Your task to perform on an android device: Open accessibility settings Image 0: 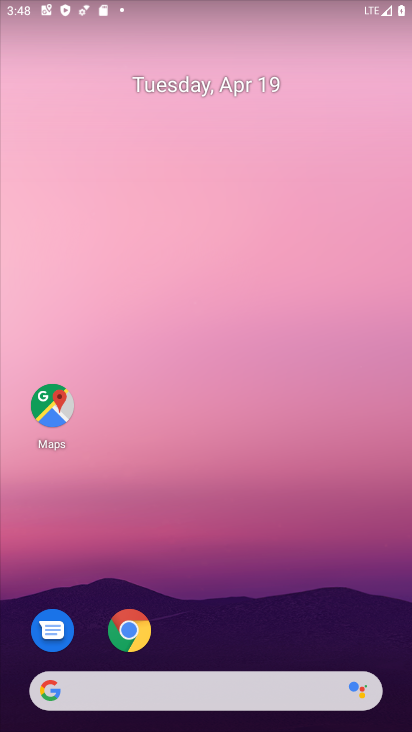
Step 0: drag from (208, 693) to (217, 113)
Your task to perform on an android device: Open accessibility settings Image 1: 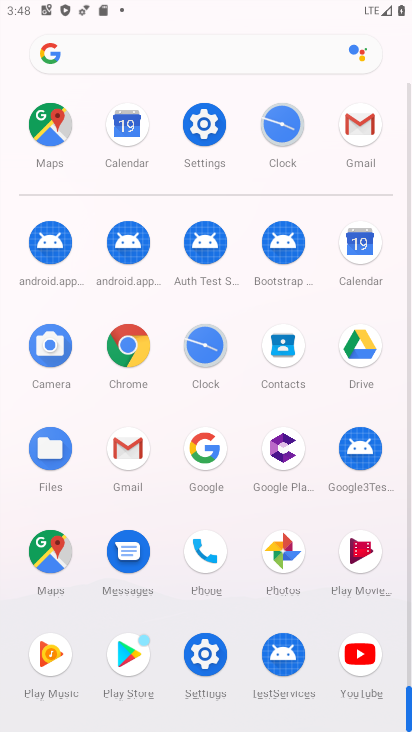
Step 1: click (199, 131)
Your task to perform on an android device: Open accessibility settings Image 2: 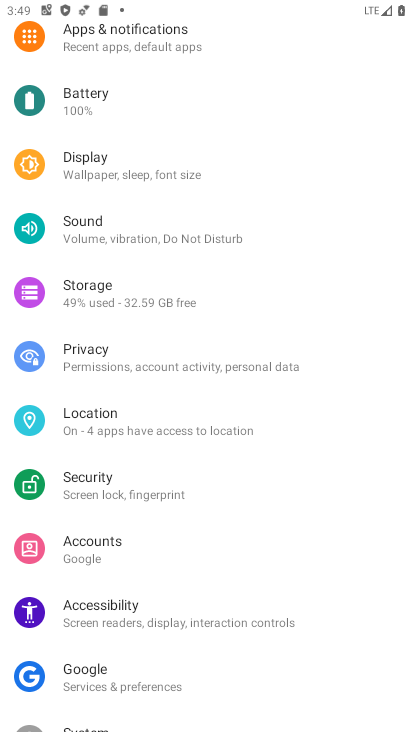
Step 2: click (101, 605)
Your task to perform on an android device: Open accessibility settings Image 3: 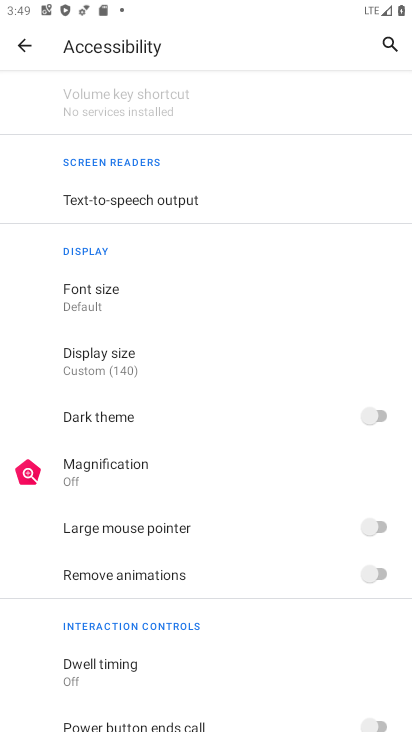
Step 3: task complete